Your task to perform on an android device: allow notifications from all sites in the chrome app Image 0: 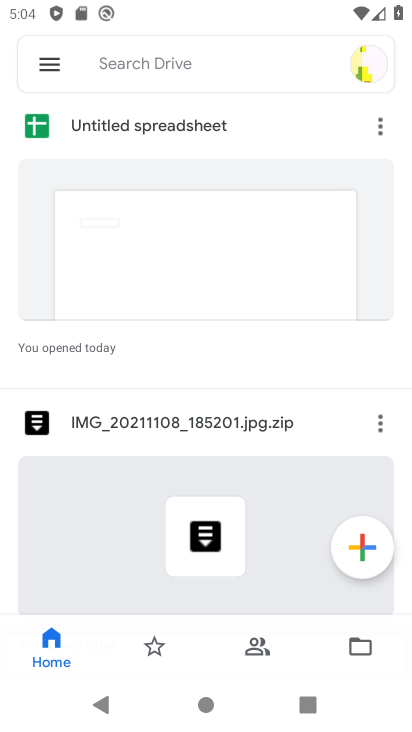
Step 0: press home button
Your task to perform on an android device: allow notifications from all sites in the chrome app Image 1: 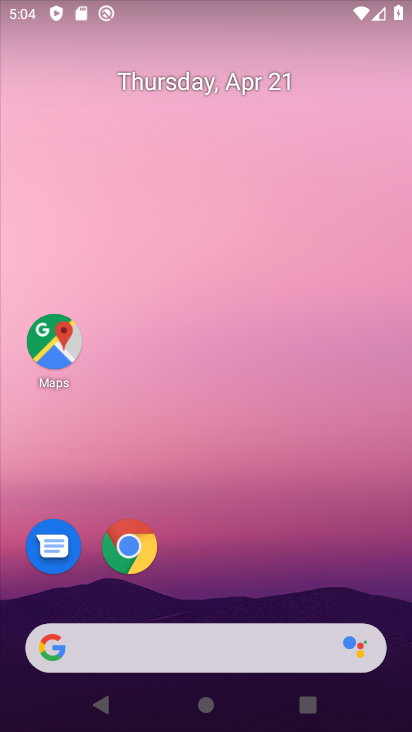
Step 1: click (133, 532)
Your task to perform on an android device: allow notifications from all sites in the chrome app Image 2: 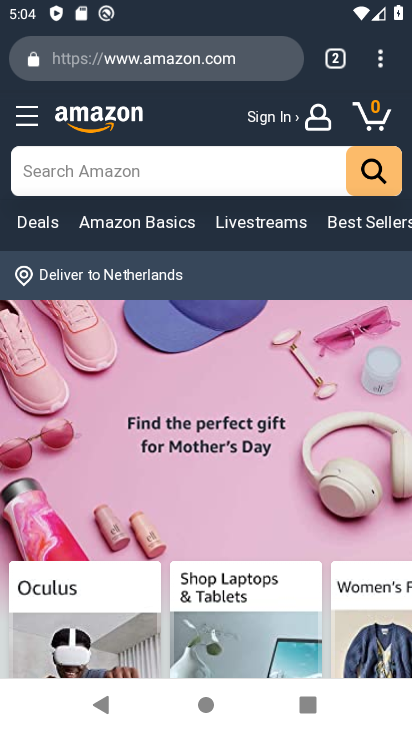
Step 2: click (382, 57)
Your task to perform on an android device: allow notifications from all sites in the chrome app Image 3: 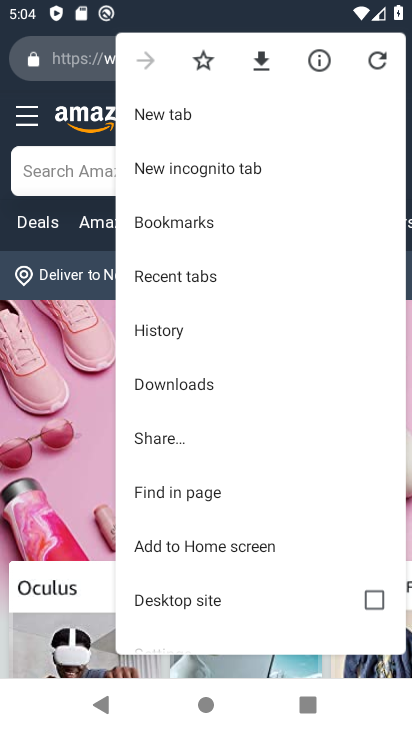
Step 3: drag from (243, 567) to (237, 313)
Your task to perform on an android device: allow notifications from all sites in the chrome app Image 4: 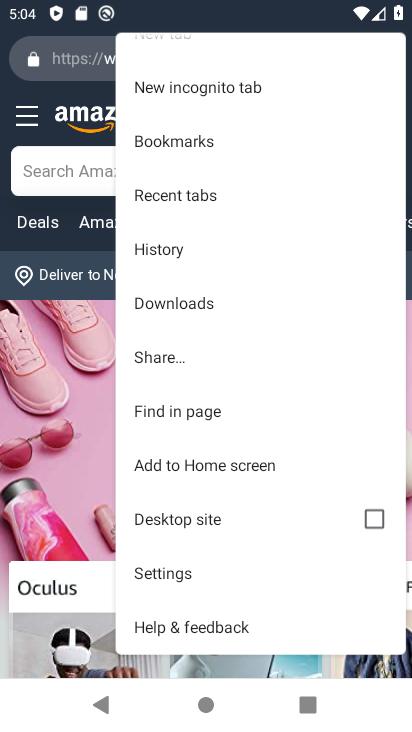
Step 4: click (197, 574)
Your task to perform on an android device: allow notifications from all sites in the chrome app Image 5: 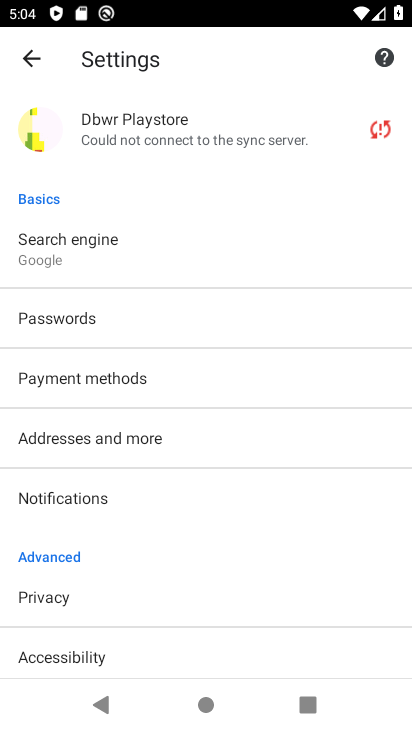
Step 5: drag from (139, 558) to (145, 183)
Your task to perform on an android device: allow notifications from all sites in the chrome app Image 6: 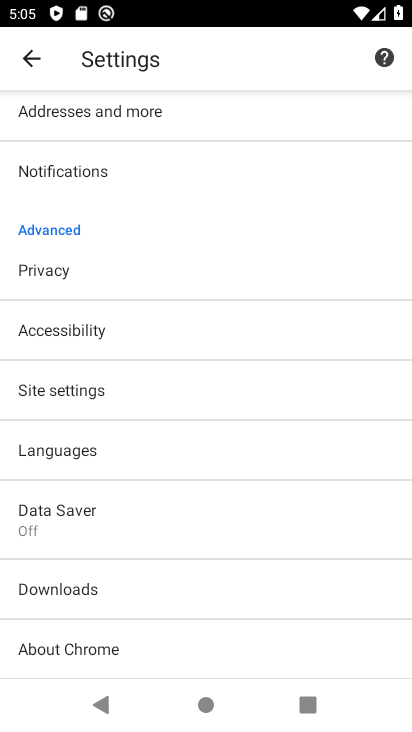
Step 6: drag from (182, 610) to (200, 212)
Your task to perform on an android device: allow notifications from all sites in the chrome app Image 7: 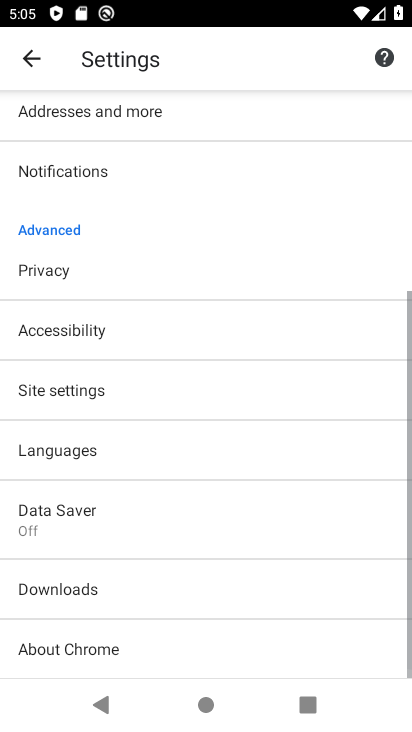
Step 7: drag from (201, 207) to (204, 628)
Your task to perform on an android device: allow notifications from all sites in the chrome app Image 8: 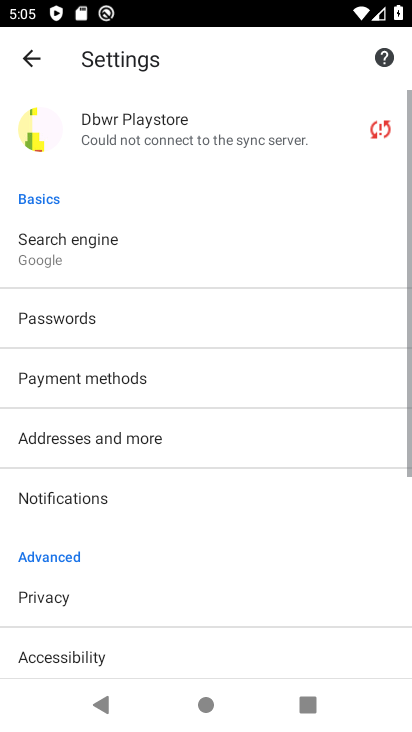
Step 8: drag from (235, 251) to (244, 571)
Your task to perform on an android device: allow notifications from all sites in the chrome app Image 9: 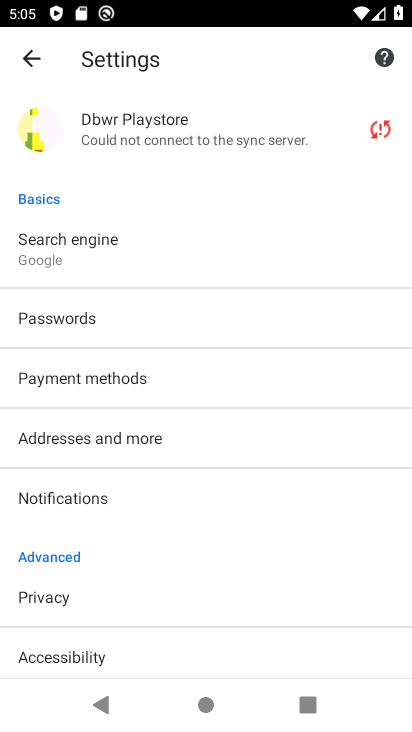
Step 9: click (85, 490)
Your task to perform on an android device: allow notifications from all sites in the chrome app Image 10: 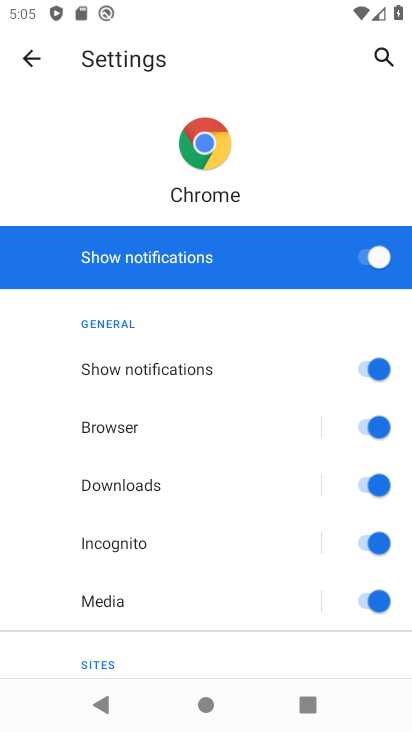
Step 10: task complete